Your task to perform on an android device: turn on the 24-hour format for clock Image 0: 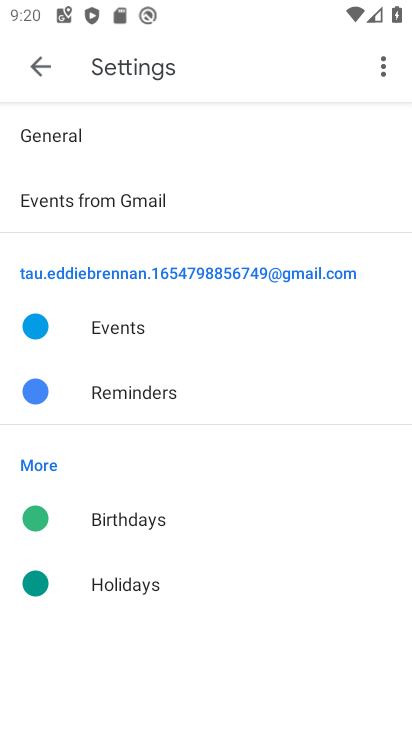
Step 0: press home button
Your task to perform on an android device: turn on the 24-hour format for clock Image 1: 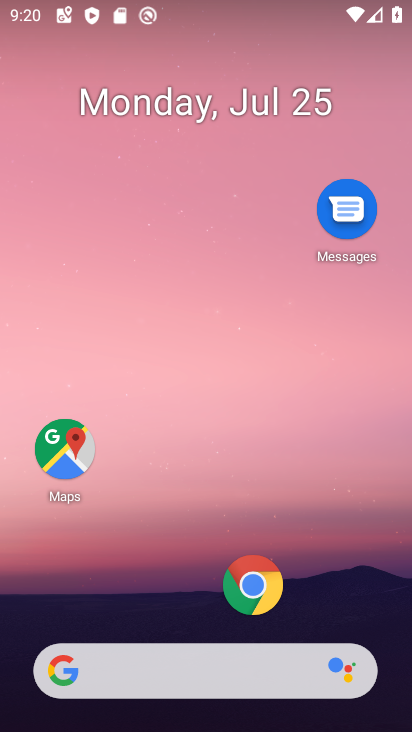
Step 1: drag from (178, 671) to (374, 47)
Your task to perform on an android device: turn on the 24-hour format for clock Image 2: 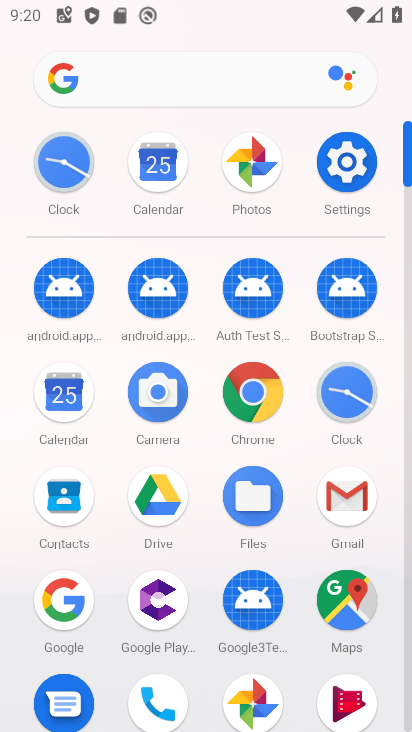
Step 2: click (338, 387)
Your task to perform on an android device: turn on the 24-hour format for clock Image 3: 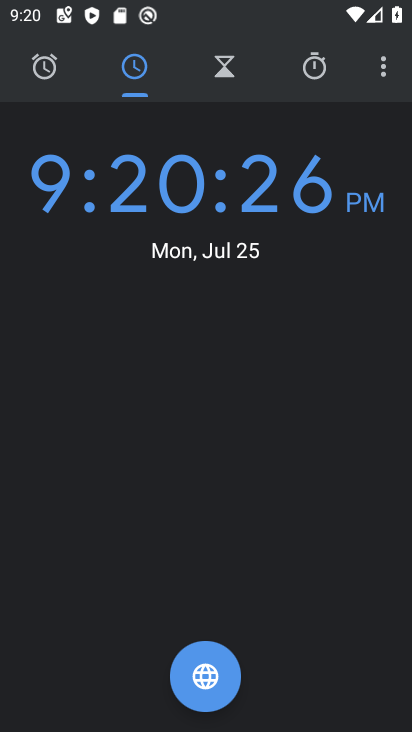
Step 3: click (384, 70)
Your task to perform on an android device: turn on the 24-hour format for clock Image 4: 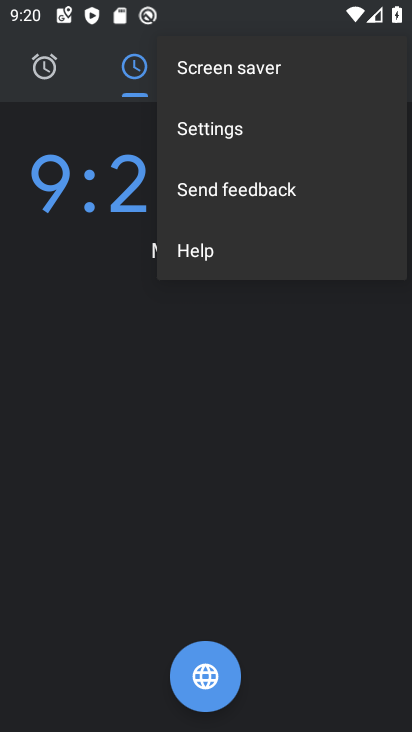
Step 4: click (242, 131)
Your task to perform on an android device: turn on the 24-hour format for clock Image 5: 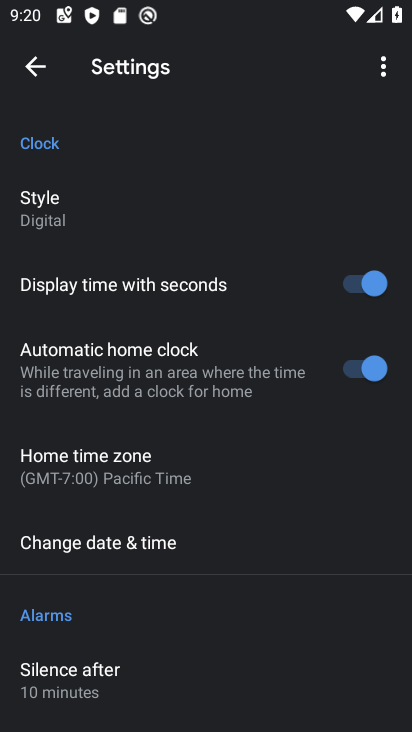
Step 5: click (137, 555)
Your task to perform on an android device: turn on the 24-hour format for clock Image 6: 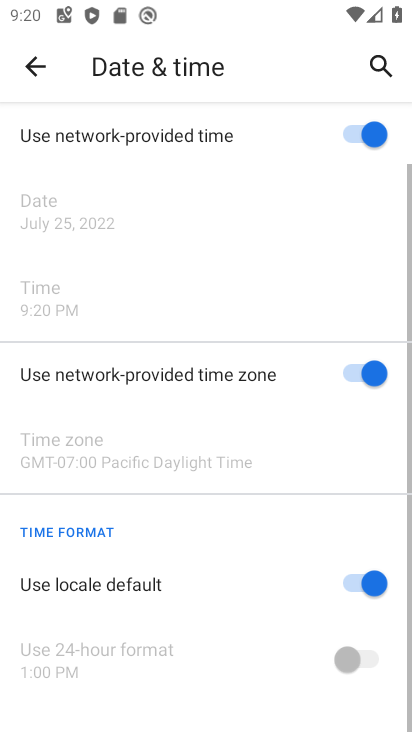
Step 6: drag from (182, 598) to (283, 104)
Your task to perform on an android device: turn on the 24-hour format for clock Image 7: 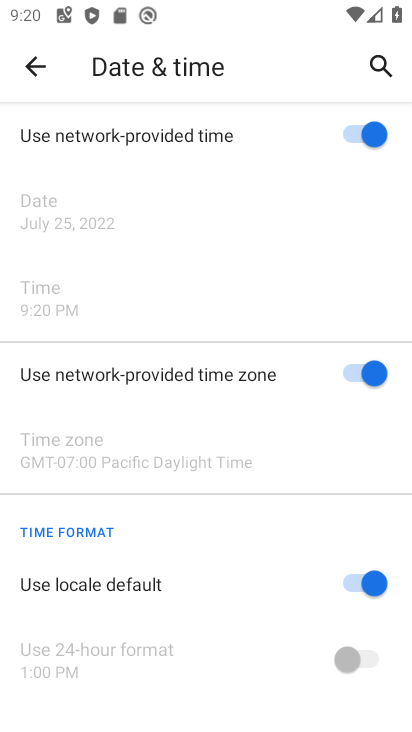
Step 7: click (349, 591)
Your task to perform on an android device: turn on the 24-hour format for clock Image 8: 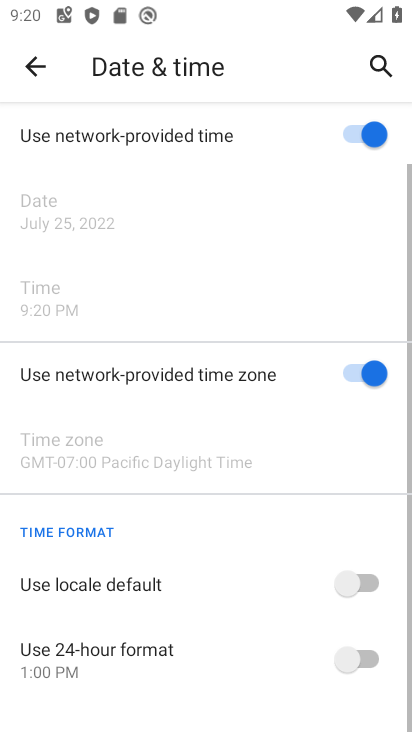
Step 8: click (370, 657)
Your task to perform on an android device: turn on the 24-hour format for clock Image 9: 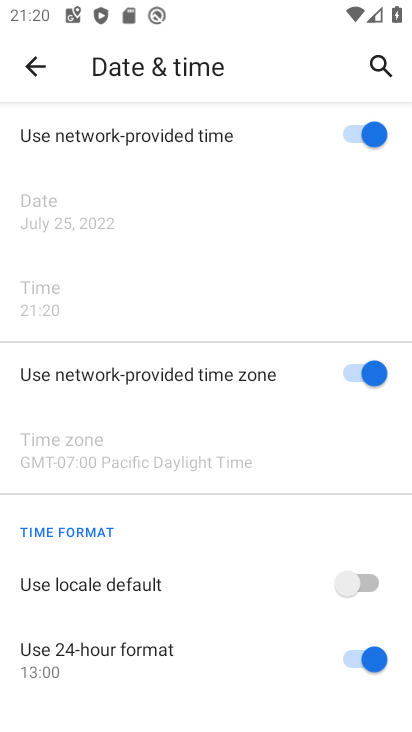
Step 9: task complete